Your task to perform on an android device: Search for seafood restaurants on Google Maps Image 0: 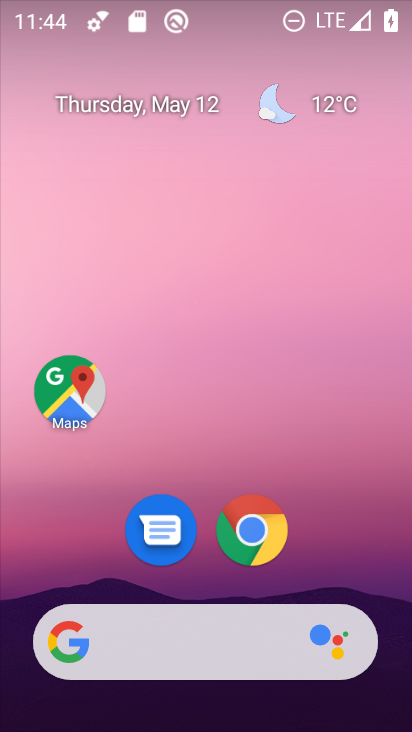
Step 0: click (82, 402)
Your task to perform on an android device: Search for seafood restaurants on Google Maps Image 1: 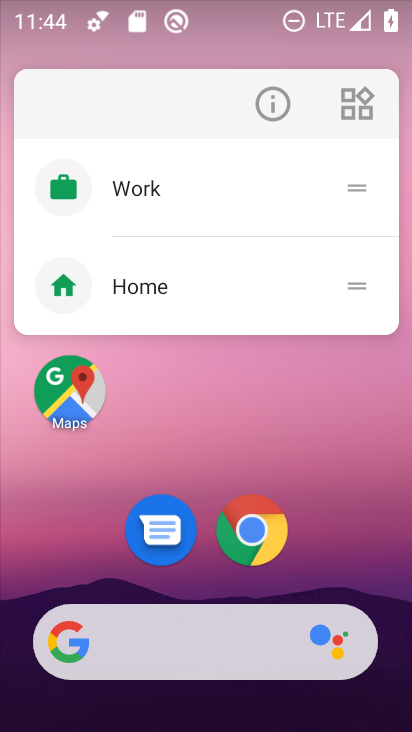
Step 1: click (85, 406)
Your task to perform on an android device: Search for seafood restaurants on Google Maps Image 2: 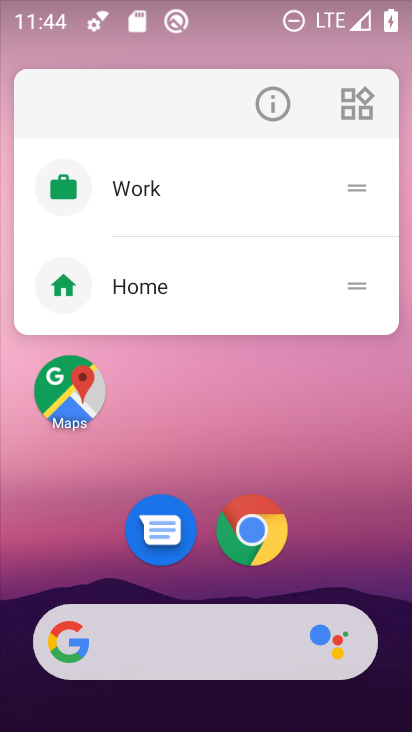
Step 2: click (73, 407)
Your task to perform on an android device: Search for seafood restaurants on Google Maps Image 3: 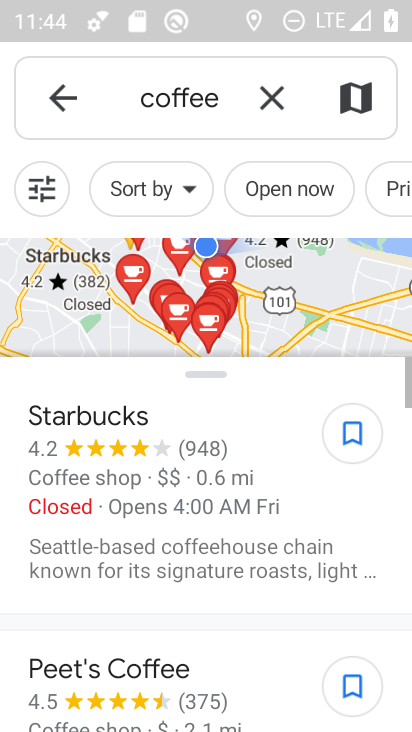
Step 3: click (267, 103)
Your task to perform on an android device: Search for seafood restaurants on Google Maps Image 4: 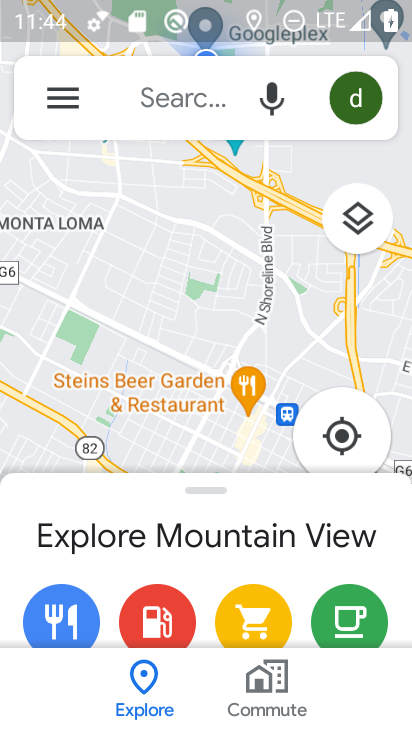
Step 4: click (191, 96)
Your task to perform on an android device: Search for seafood restaurants on Google Maps Image 5: 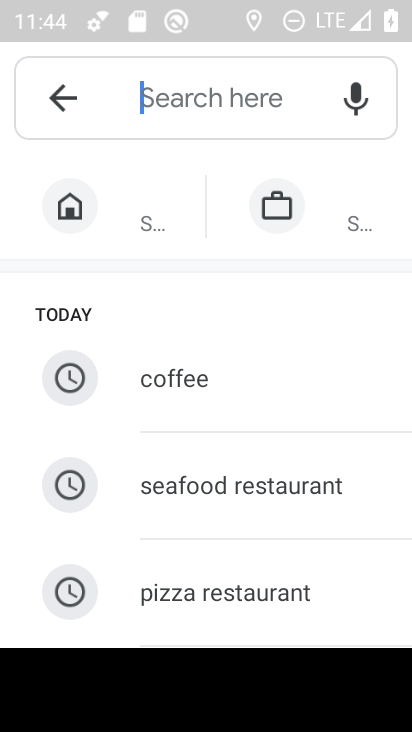
Step 5: click (197, 484)
Your task to perform on an android device: Search for seafood restaurants on Google Maps Image 6: 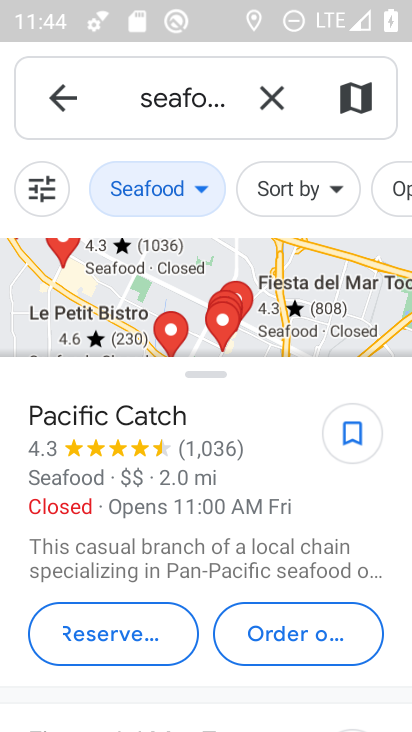
Step 6: task complete